Your task to perform on an android device: turn on the 24-hour format for clock Image 0: 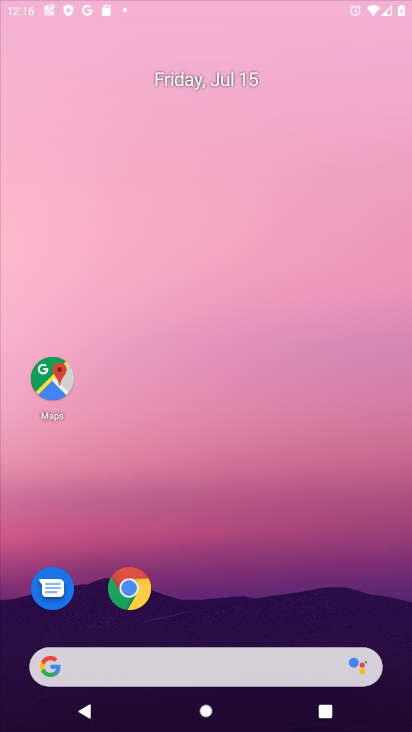
Step 0: press home button
Your task to perform on an android device: turn on the 24-hour format for clock Image 1: 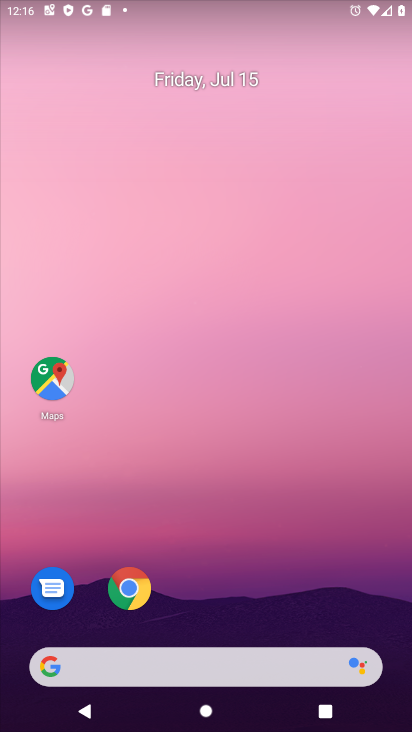
Step 1: drag from (137, 670) to (258, 260)
Your task to perform on an android device: turn on the 24-hour format for clock Image 2: 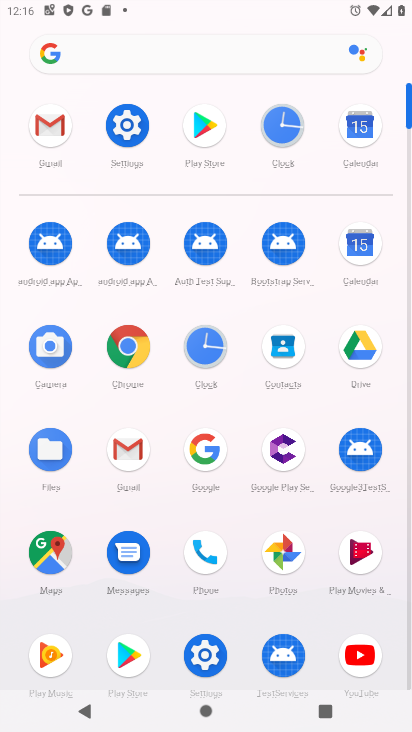
Step 2: click (204, 345)
Your task to perform on an android device: turn on the 24-hour format for clock Image 3: 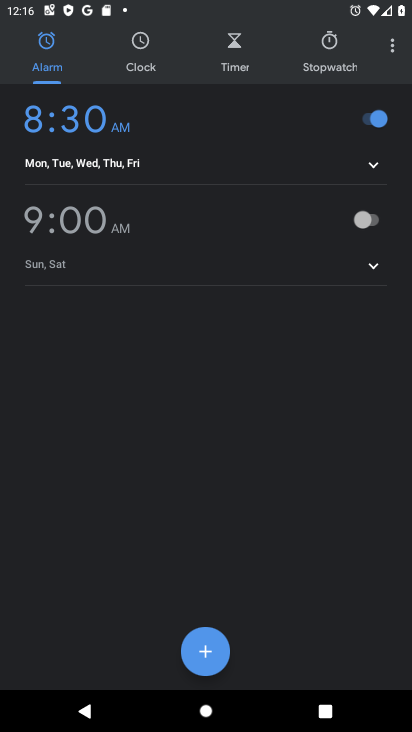
Step 3: click (392, 49)
Your task to perform on an android device: turn on the 24-hour format for clock Image 4: 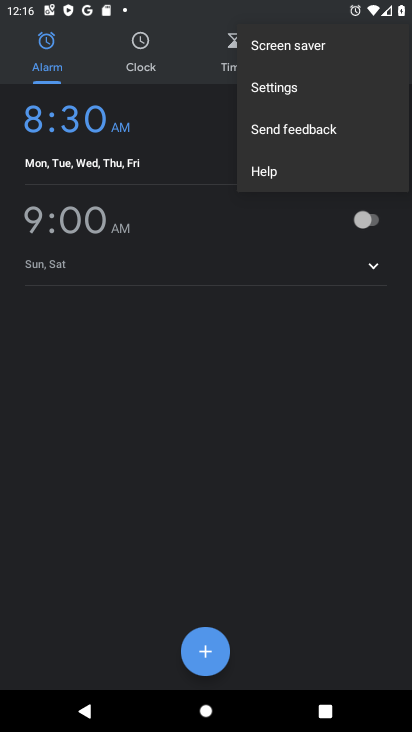
Step 4: click (281, 87)
Your task to perform on an android device: turn on the 24-hour format for clock Image 5: 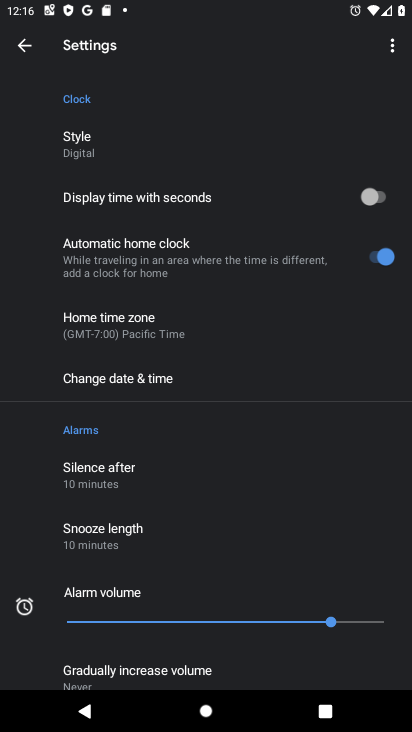
Step 5: click (113, 366)
Your task to perform on an android device: turn on the 24-hour format for clock Image 6: 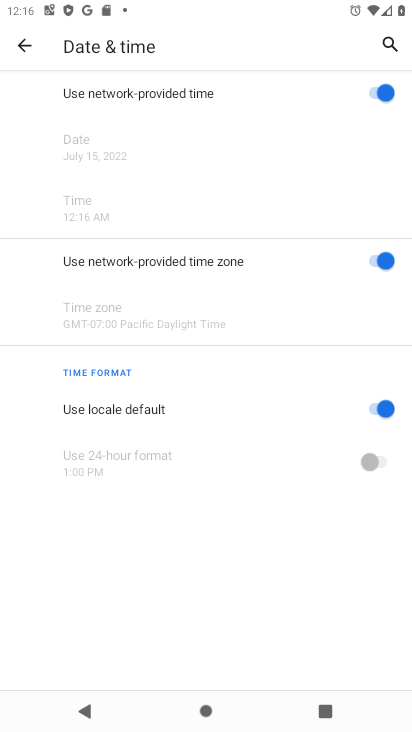
Step 6: click (372, 404)
Your task to perform on an android device: turn on the 24-hour format for clock Image 7: 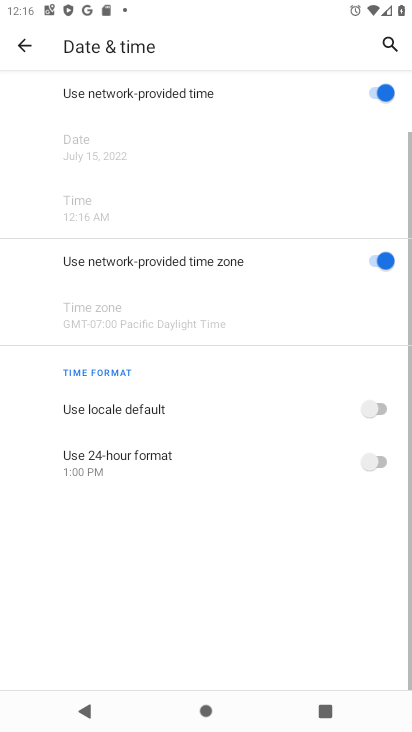
Step 7: click (386, 459)
Your task to perform on an android device: turn on the 24-hour format for clock Image 8: 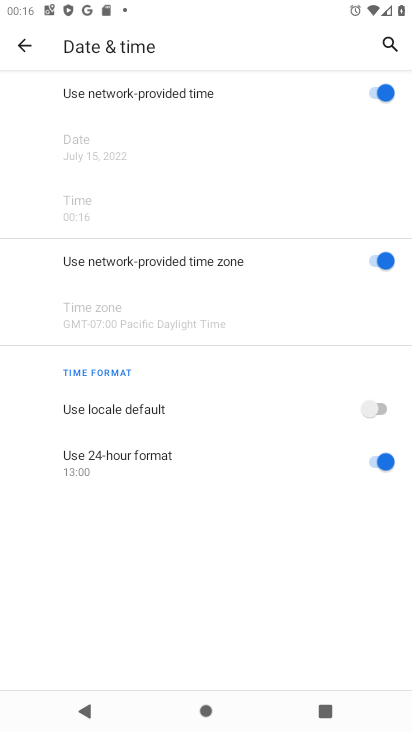
Step 8: task complete